Your task to perform on an android device: Go to Google Image 0: 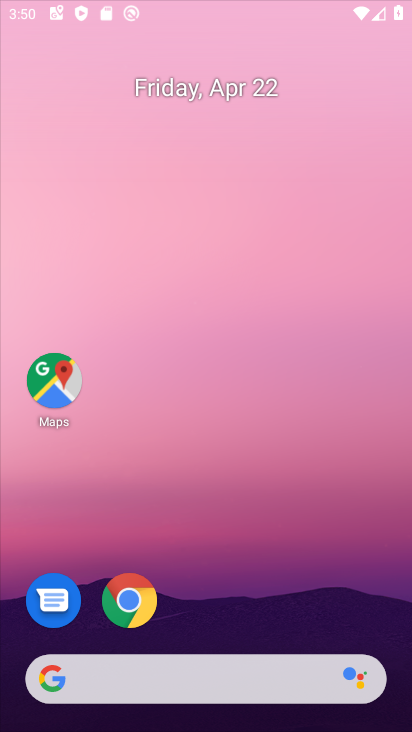
Step 0: click (294, 81)
Your task to perform on an android device: Go to Google Image 1: 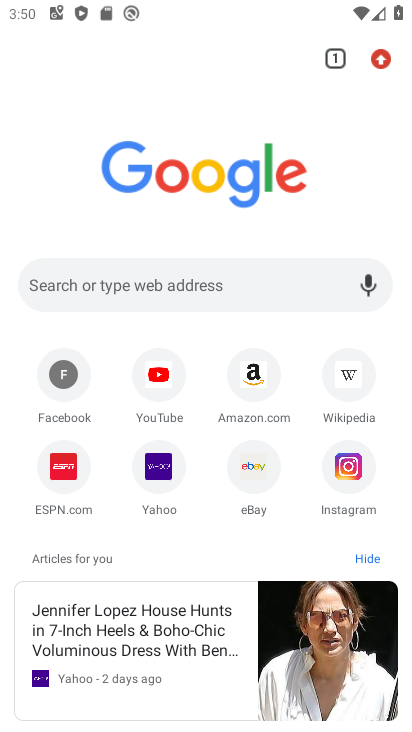
Step 1: press home button
Your task to perform on an android device: Go to Google Image 2: 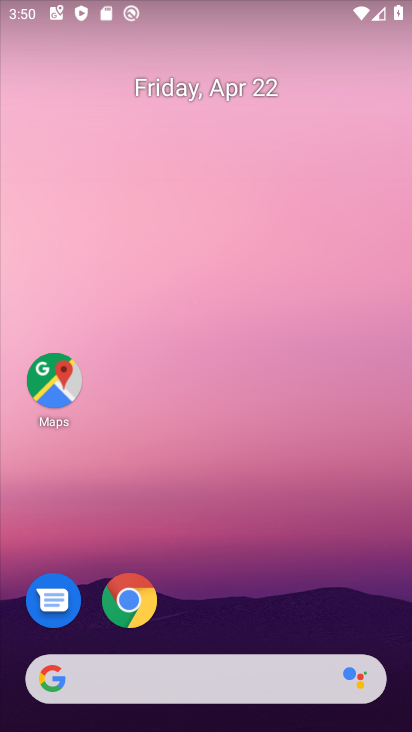
Step 2: drag from (163, 662) to (284, 81)
Your task to perform on an android device: Go to Google Image 3: 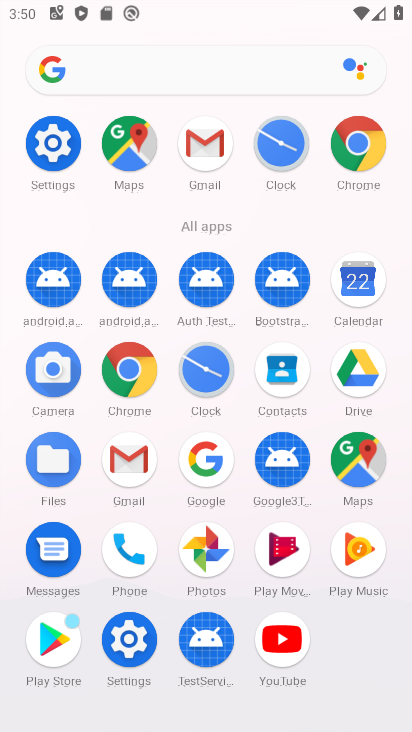
Step 3: click (203, 468)
Your task to perform on an android device: Go to Google Image 4: 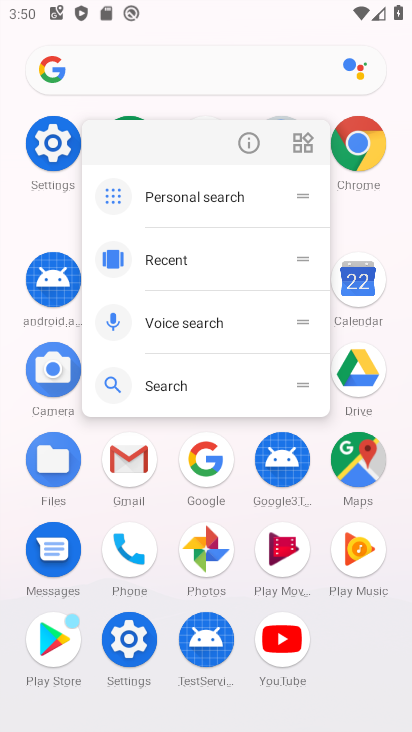
Step 4: click (203, 465)
Your task to perform on an android device: Go to Google Image 5: 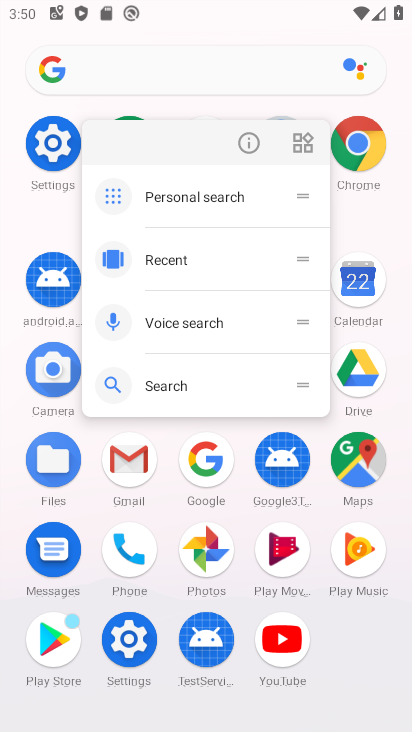
Step 5: click (205, 447)
Your task to perform on an android device: Go to Google Image 6: 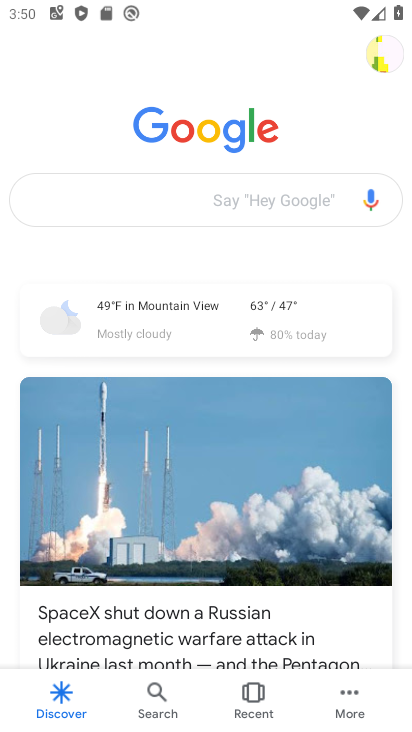
Step 6: task complete